Your task to perform on an android device: Show me the alarms in the clock app Image 0: 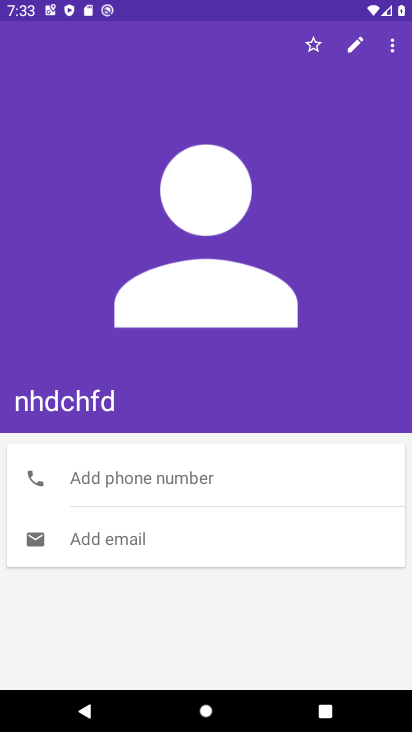
Step 0: drag from (201, 630) to (232, 162)
Your task to perform on an android device: Show me the alarms in the clock app Image 1: 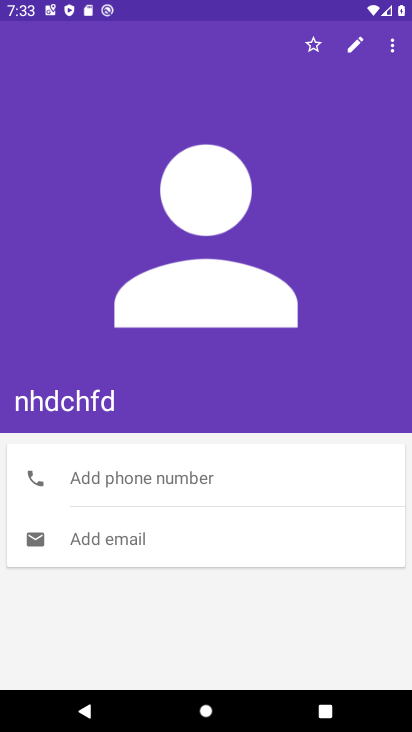
Step 1: press home button
Your task to perform on an android device: Show me the alarms in the clock app Image 2: 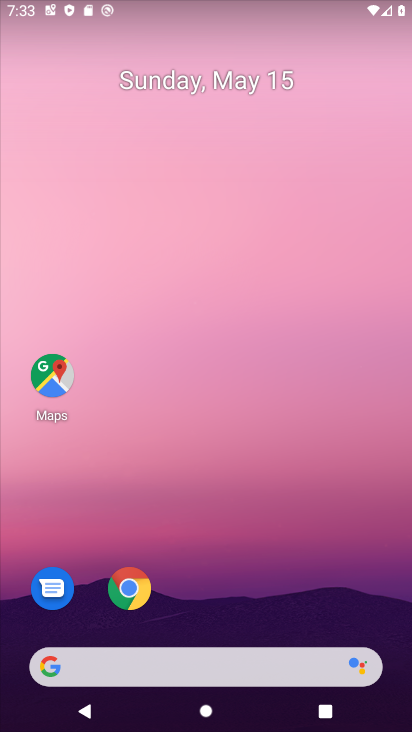
Step 2: drag from (191, 633) to (249, 137)
Your task to perform on an android device: Show me the alarms in the clock app Image 3: 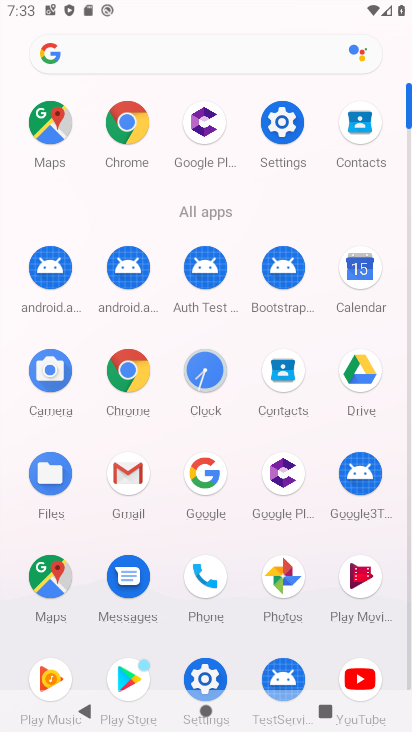
Step 3: click (207, 365)
Your task to perform on an android device: Show me the alarms in the clock app Image 4: 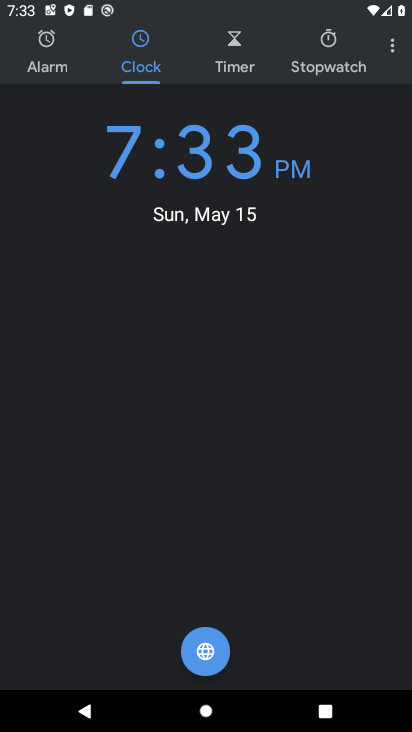
Step 4: click (40, 57)
Your task to perform on an android device: Show me the alarms in the clock app Image 5: 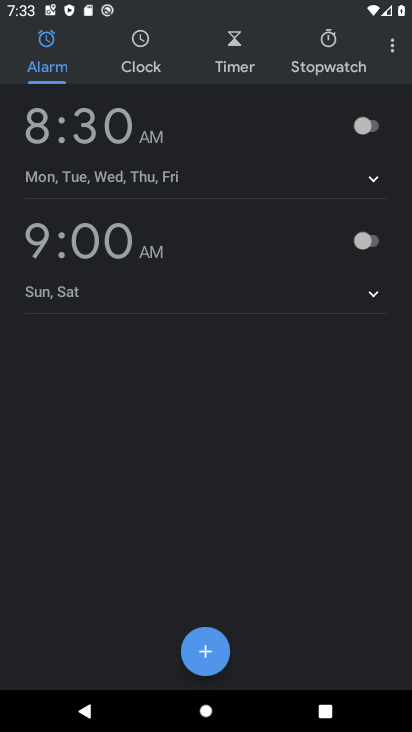
Step 5: task complete